Your task to perform on an android device: change the clock display to show seconds Image 0: 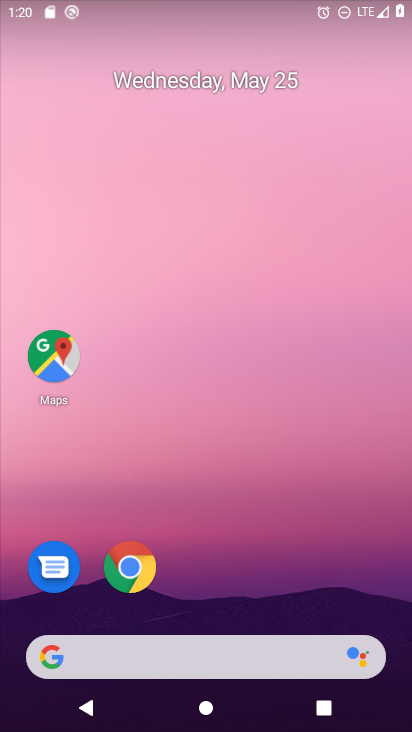
Step 0: drag from (394, 667) to (338, 239)
Your task to perform on an android device: change the clock display to show seconds Image 1: 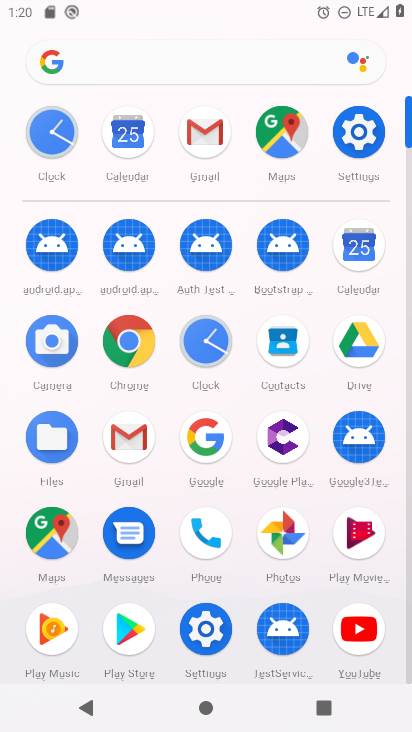
Step 1: click (206, 343)
Your task to perform on an android device: change the clock display to show seconds Image 2: 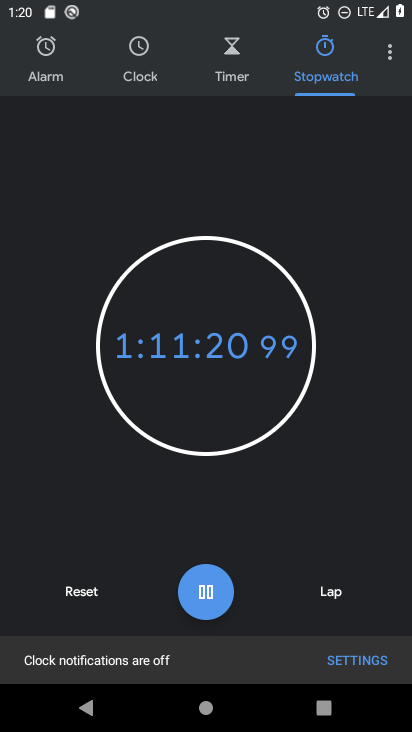
Step 2: click (389, 46)
Your task to perform on an android device: change the clock display to show seconds Image 3: 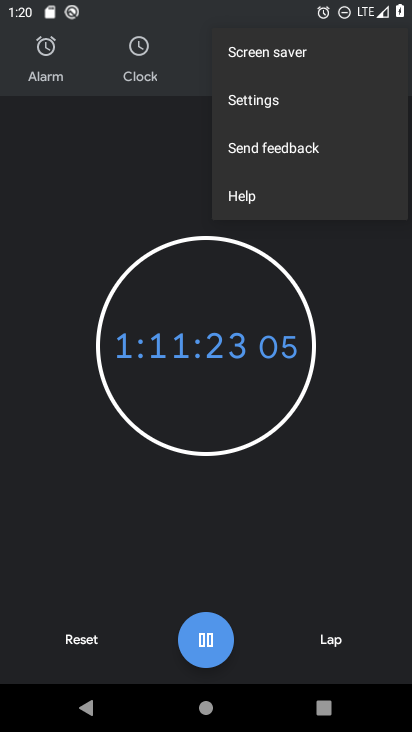
Step 3: click (248, 100)
Your task to perform on an android device: change the clock display to show seconds Image 4: 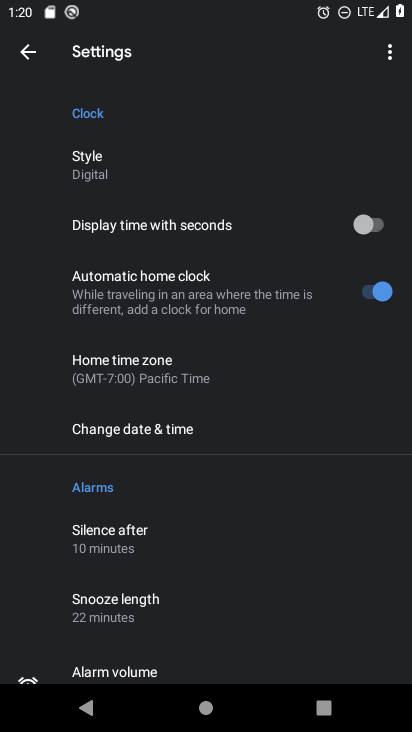
Step 4: click (374, 222)
Your task to perform on an android device: change the clock display to show seconds Image 5: 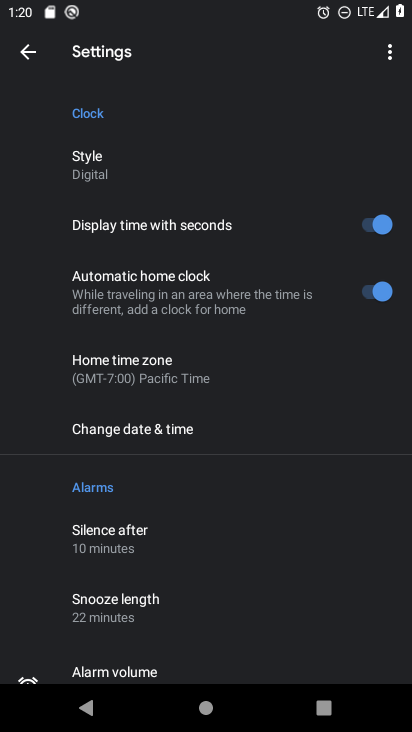
Step 5: task complete